Your task to perform on an android device: Go to Yahoo.com Image 0: 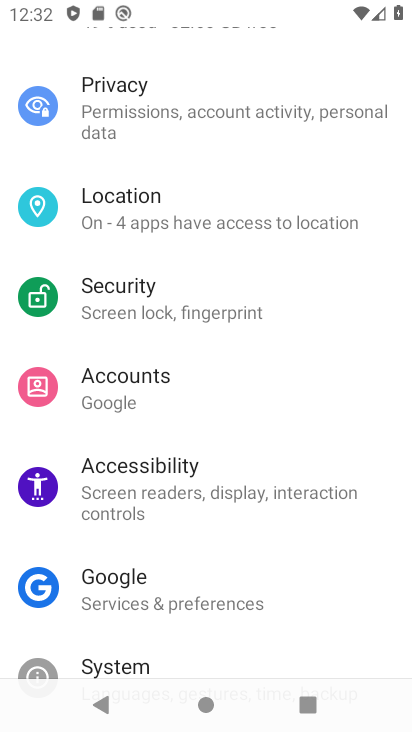
Step 0: press home button
Your task to perform on an android device: Go to Yahoo.com Image 1: 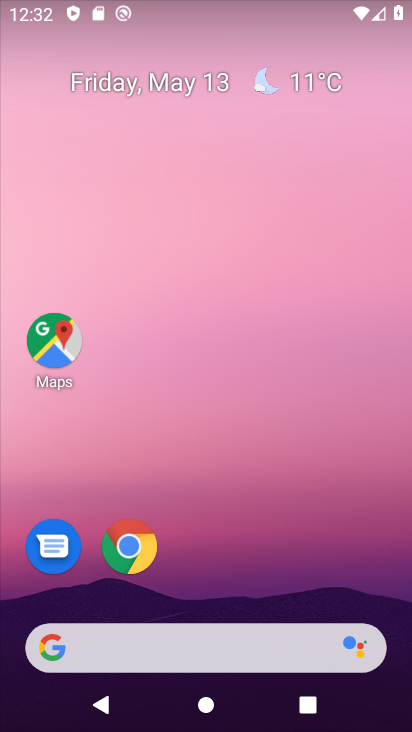
Step 1: click (142, 569)
Your task to perform on an android device: Go to Yahoo.com Image 2: 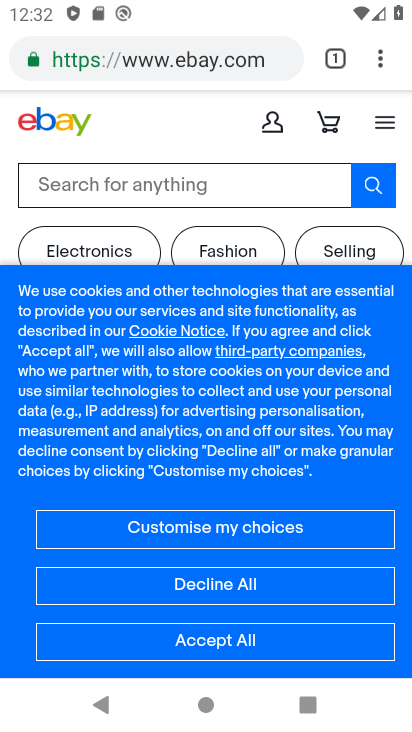
Step 2: click (262, 64)
Your task to perform on an android device: Go to Yahoo.com Image 3: 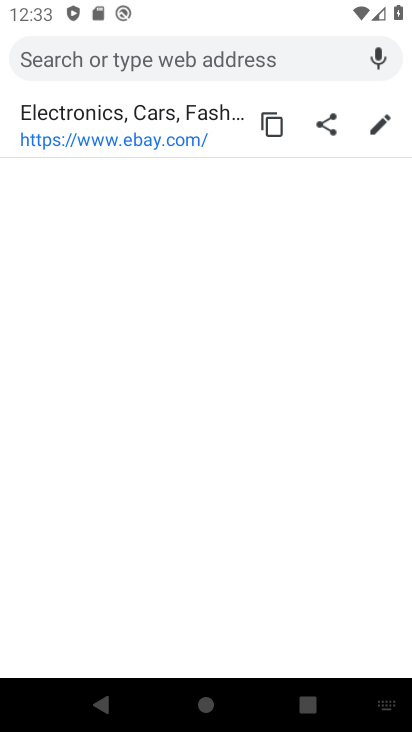
Step 3: type "yahooo.com"
Your task to perform on an android device: Go to Yahoo.com Image 4: 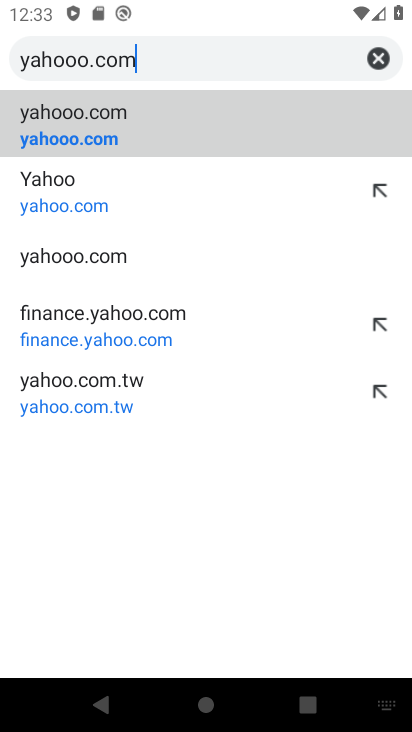
Step 4: click (134, 137)
Your task to perform on an android device: Go to Yahoo.com Image 5: 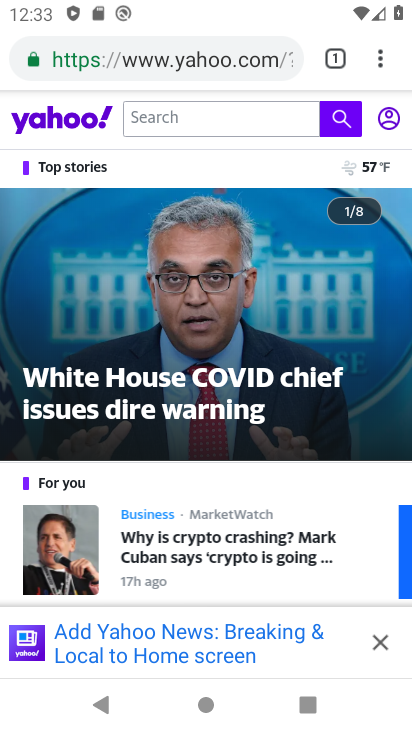
Step 5: task complete